Your task to perform on an android device: Go to Android settings Image 0: 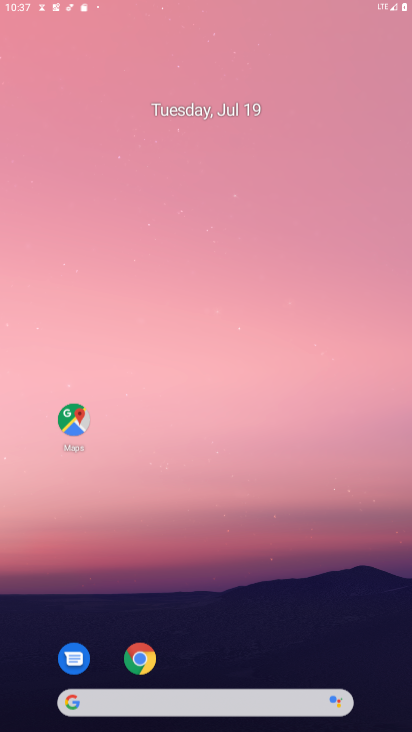
Step 0: drag from (174, 645) to (336, 0)
Your task to perform on an android device: Go to Android settings Image 1: 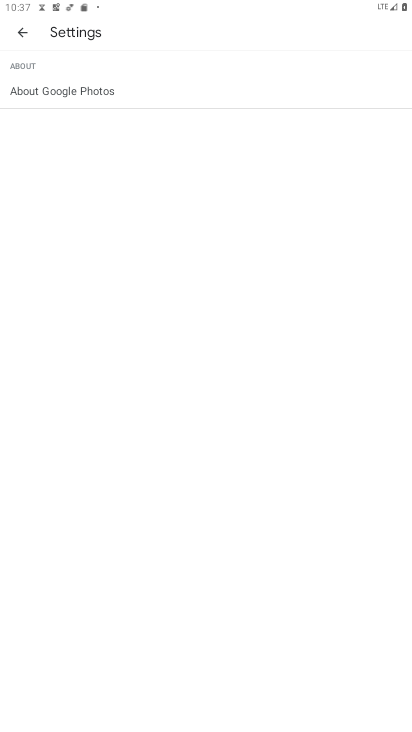
Step 1: press home button
Your task to perform on an android device: Go to Android settings Image 2: 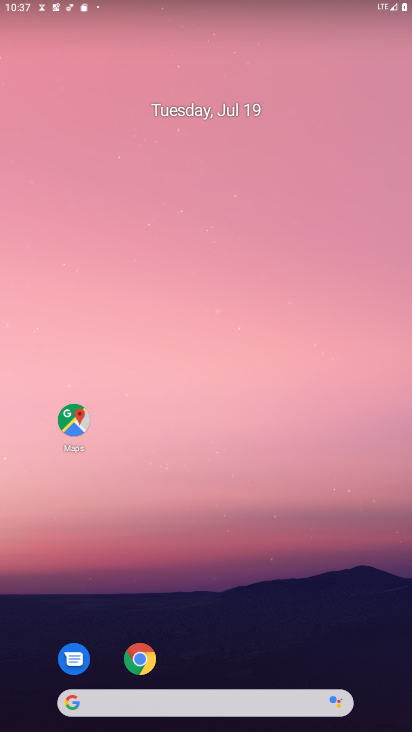
Step 2: drag from (183, 666) to (256, 31)
Your task to perform on an android device: Go to Android settings Image 3: 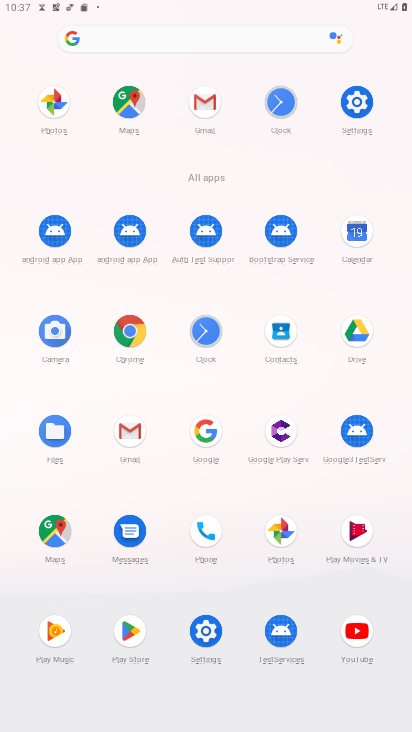
Step 3: click (205, 624)
Your task to perform on an android device: Go to Android settings Image 4: 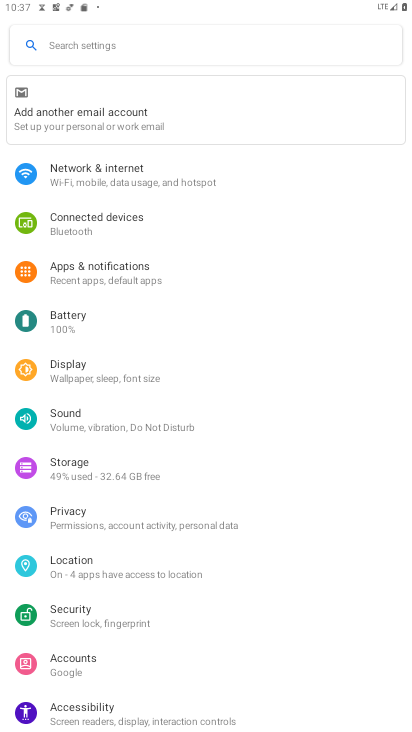
Step 4: drag from (133, 709) to (238, 164)
Your task to perform on an android device: Go to Android settings Image 5: 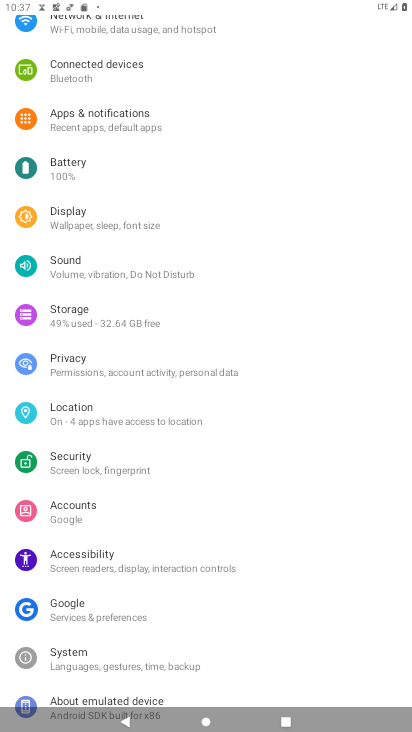
Step 5: click (138, 692)
Your task to perform on an android device: Go to Android settings Image 6: 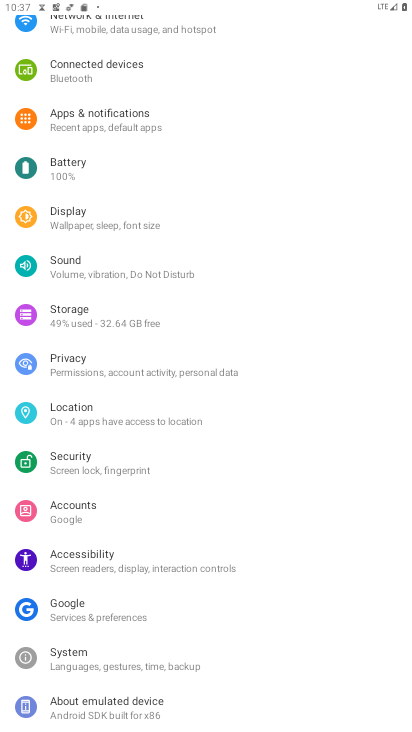
Step 6: click (138, 692)
Your task to perform on an android device: Go to Android settings Image 7: 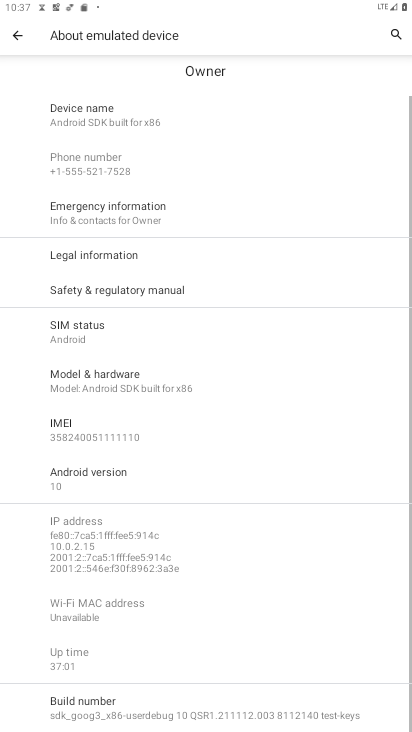
Step 7: click (140, 477)
Your task to perform on an android device: Go to Android settings Image 8: 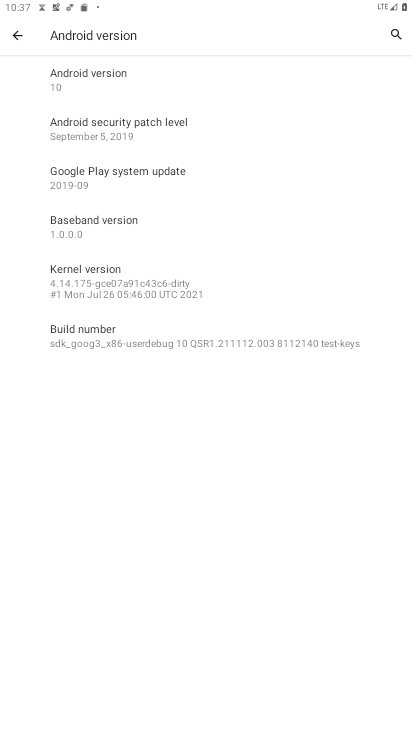
Step 8: drag from (216, 525) to (261, 188)
Your task to perform on an android device: Go to Android settings Image 9: 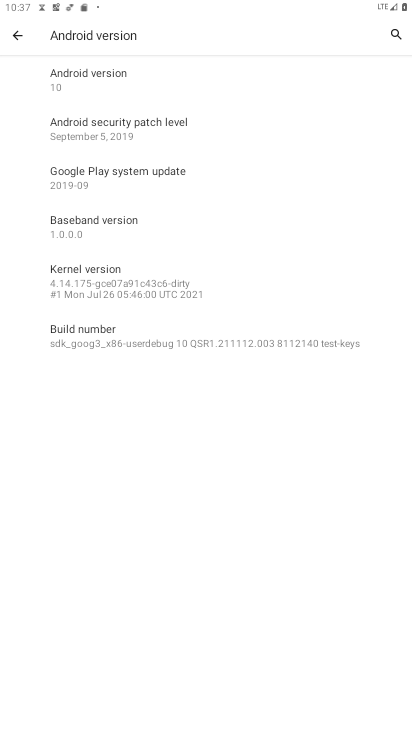
Step 9: click (188, 77)
Your task to perform on an android device: Go to Android settings Image 10: 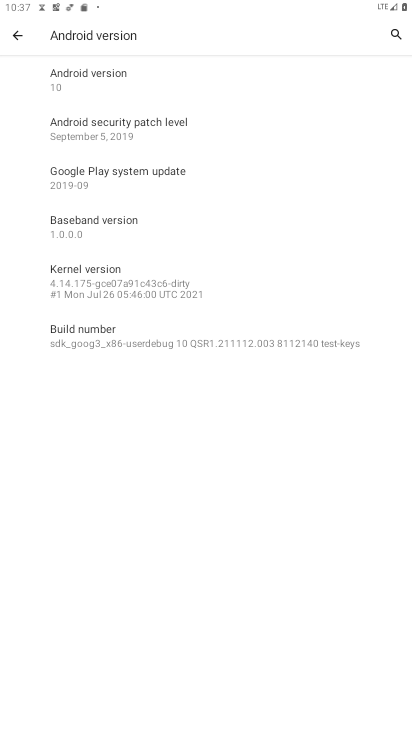
Step 10: task complete